Your task to perform on an android device: toggle sleep mode Image 0: 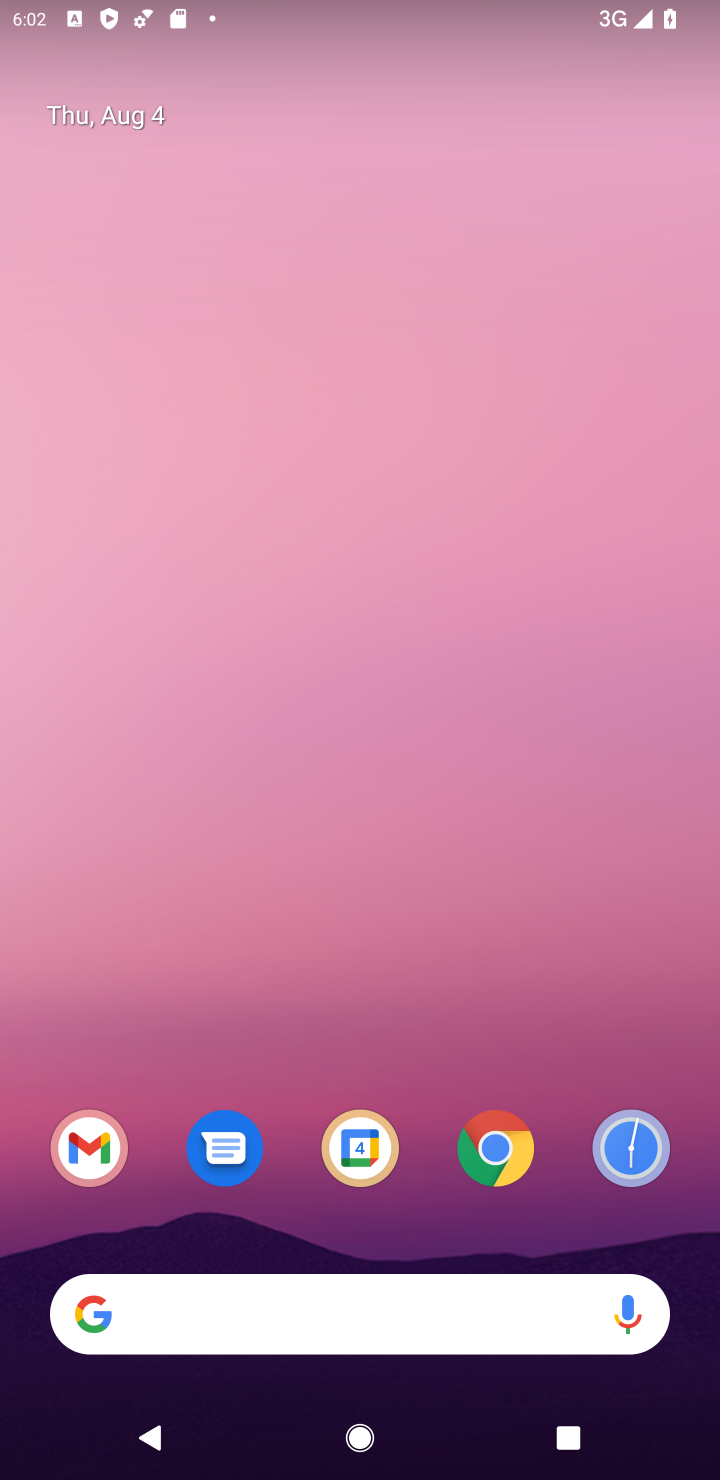
Step 0: drag from (530, 905) to (559, 153)
Your task to perform on an android device: toggle sleep mode Image 1: 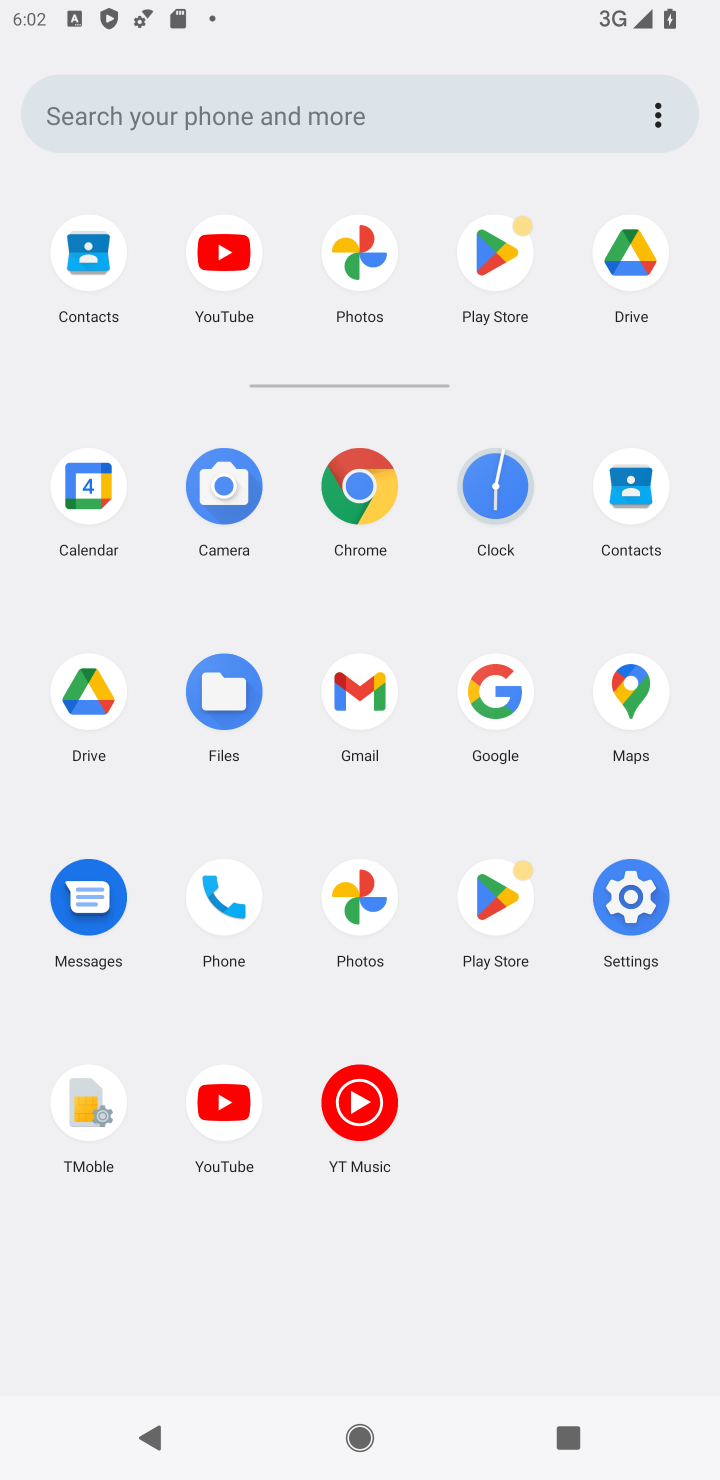
Step 1: click (633, 899)
Your task to perform on an android device: toggle sleep mode Image 2: 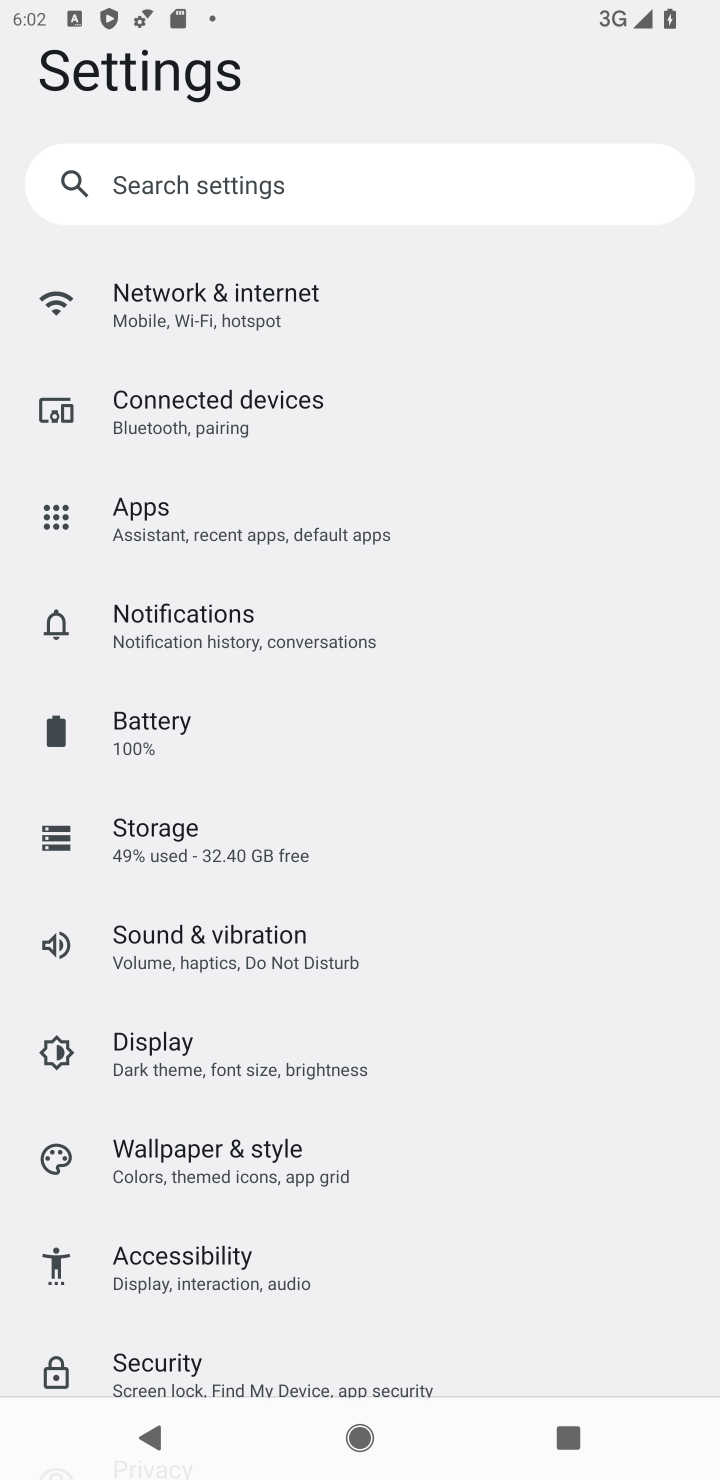
Step 2: click (191, 1067)
Your task to perform on an android device: toggle sleep mode Image 3: 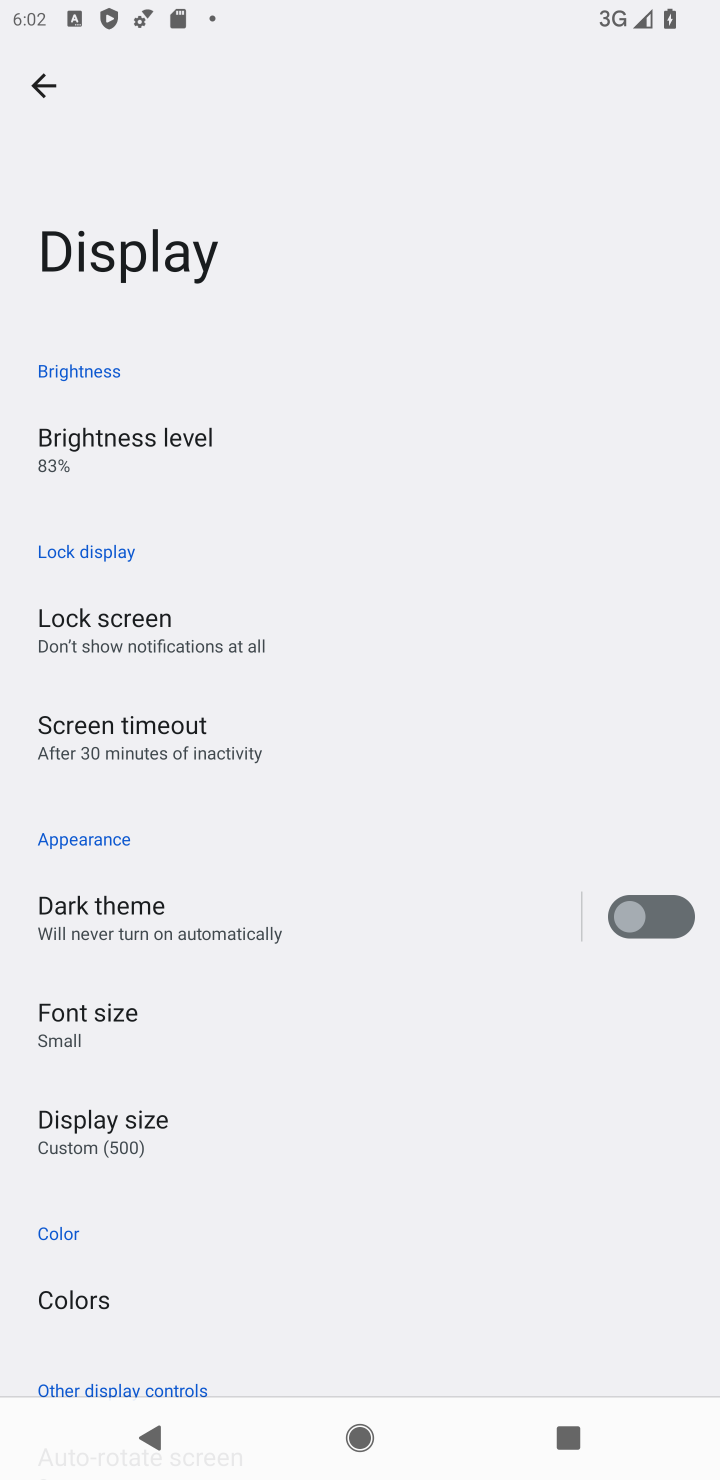
Step 3: task complete